Your task to perform on an android device: Go to calendar. Show me events next week Image 0: 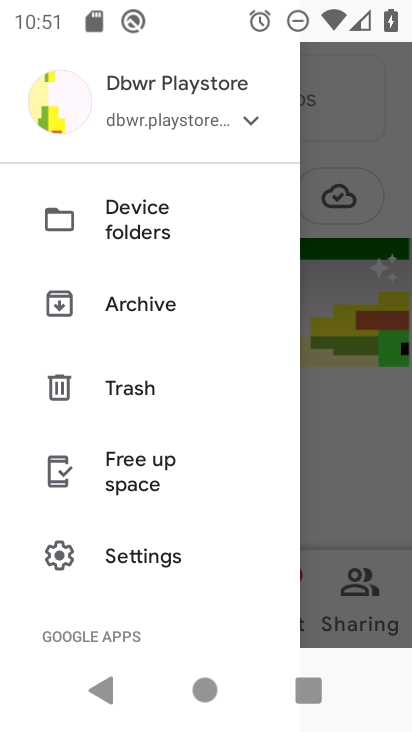
Step 0: press home button
Your task to perform on an android device: Go to calendar. Show me events next week Image 1: 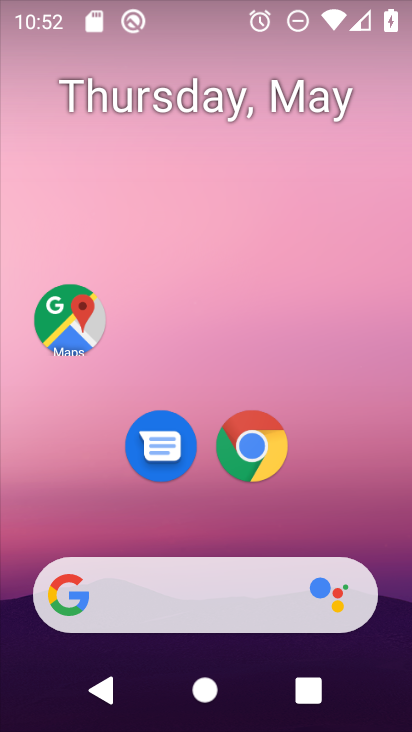
Step 1: drag from (226, 650) to (253, 200)
Your task to perform on an android device: Go to calendar. Show me events next week Image 2: 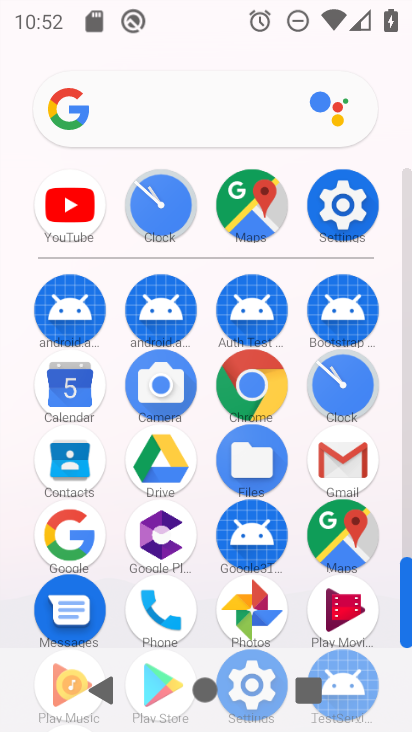
Step 2: click (60, 387)
Your task to perform on an android device: Go to calendar. Show me events next week Image 3: 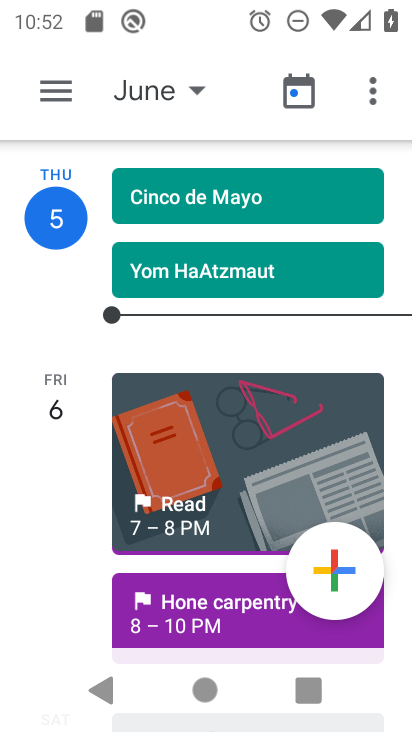
Step 3: click (44, 100)
Your task to perform on an android device: Go to calendar. Show me events next week Image 4: 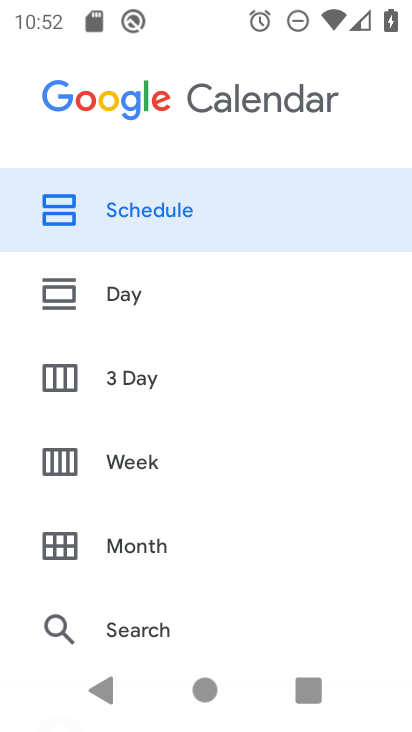
Step 4: click (120, 547)
Your task to perform on an android device: Go to calendar. Show me events next week Image 5: 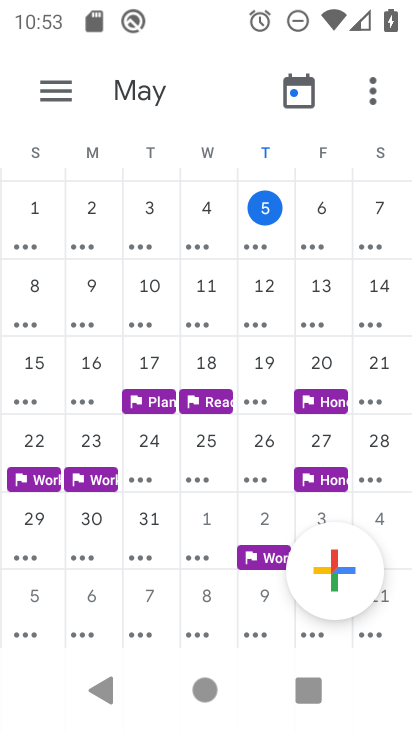
Step 5: click (82, 307)
Your task to perform on an android device: Go to calendar. Show me events next week Image 6: 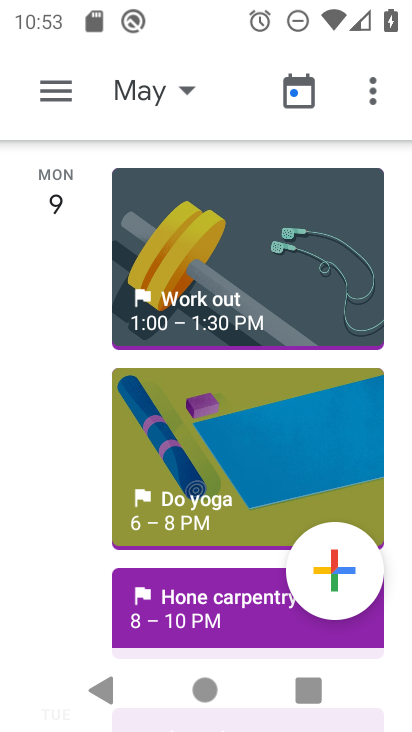
Step 6: task complete